Your task to perform on an android device: change notification settings in the gmail app Image 0: 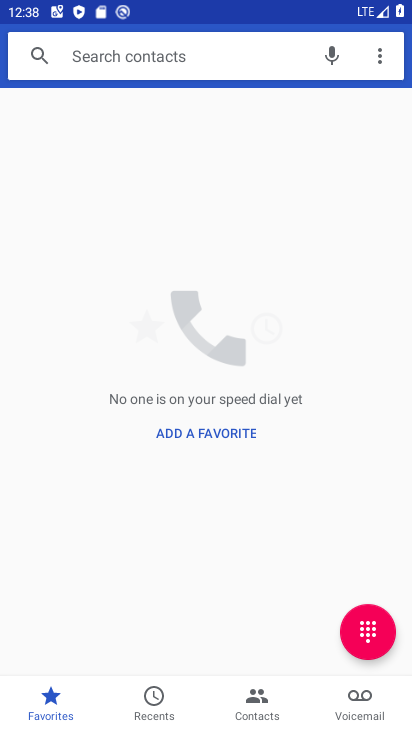
Step 0: press home button
Your task to perform on an android device: change notification settings in the gmail app Image 1: 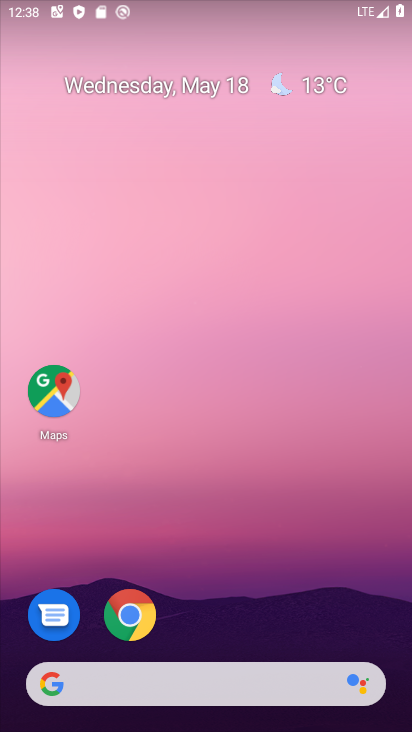
Step 1: drag from (198, 587) to (338, 169)
Your task to perform on an android device: change notification settings in the gmail app Image 2: 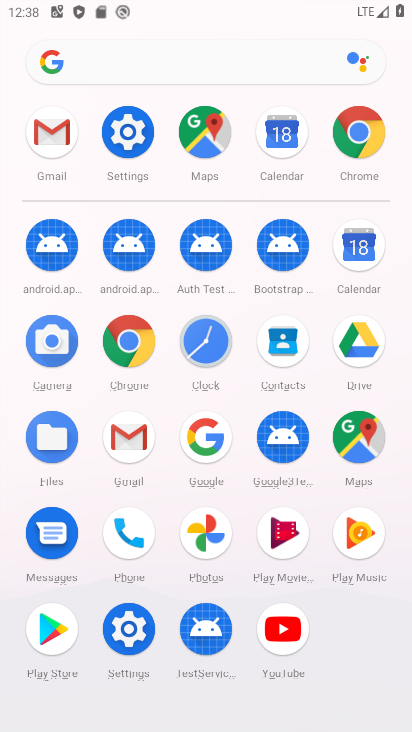
Step 2: click (59, 142)
Your task to perform on an android device: change notification settings in the gmail app Image 3: 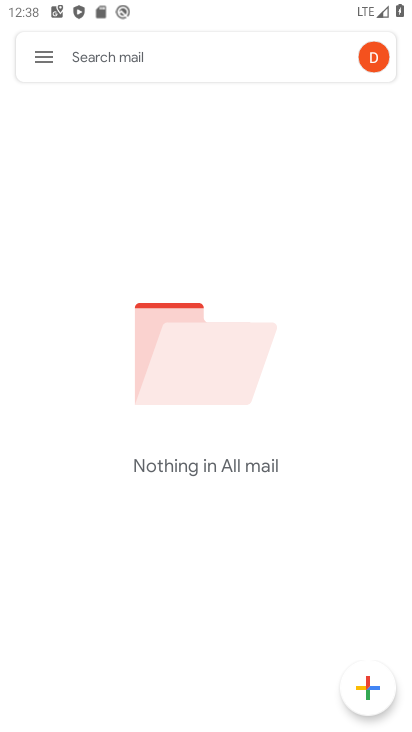
Step 3: click (34, 55)
Your task to perform on an android device: change notification settings in the gmail app Image 4: 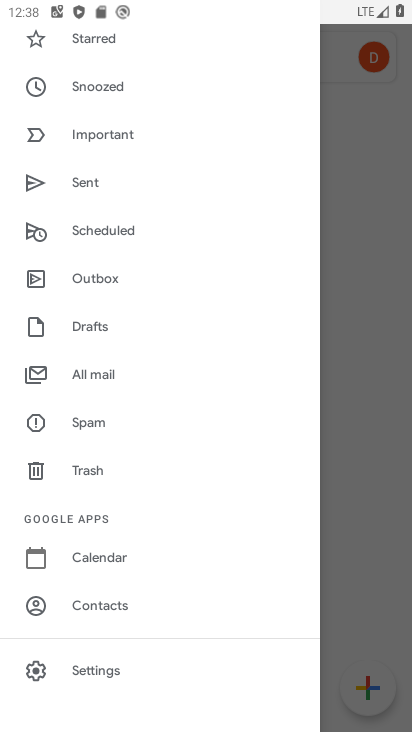
Step 4: click (110, 676)
Your task to perform on an android device: change notification settings in the gmail app Image 5: 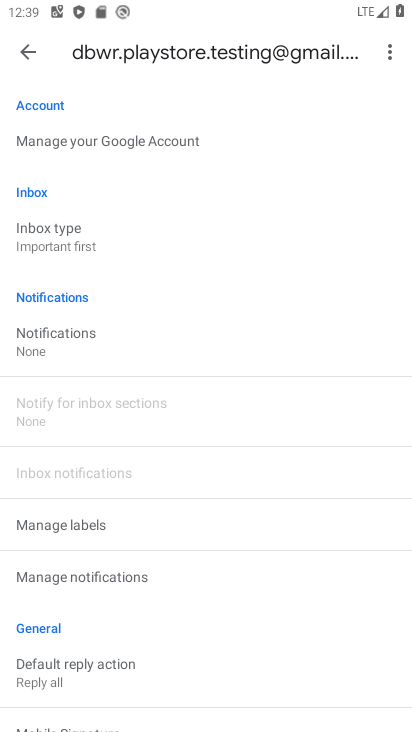
Step 5: click (53, 325)
Your task to perform on an android device: change notification settings in the gmail app Image 6: 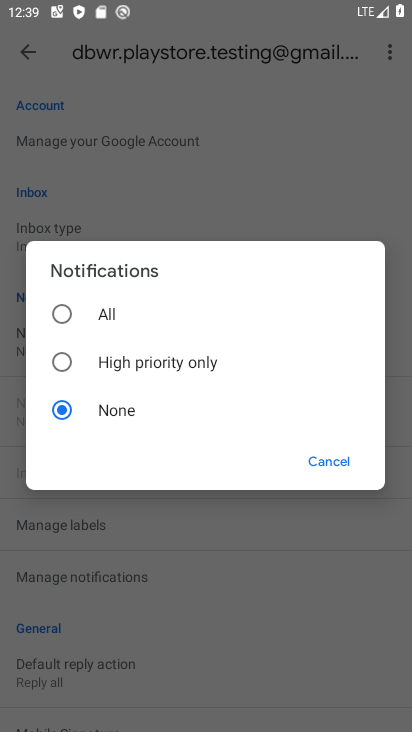
Step 6: click (61, 311)
Your task to perform on an android device: change notification settings in the gmail app Image 7: 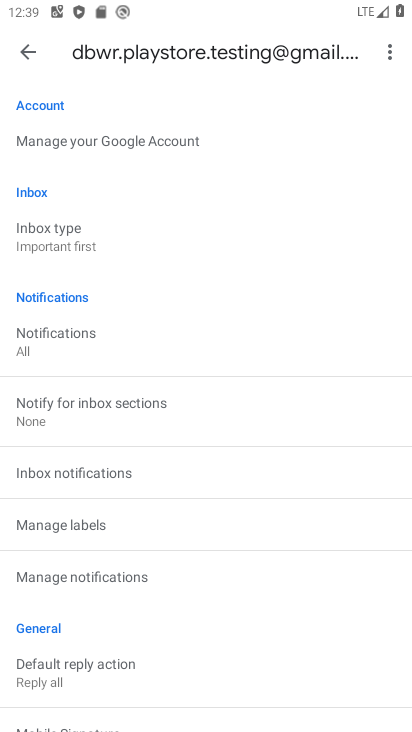
Step 7: task complete